Your task to perform on an android device: Open maps Image 0: 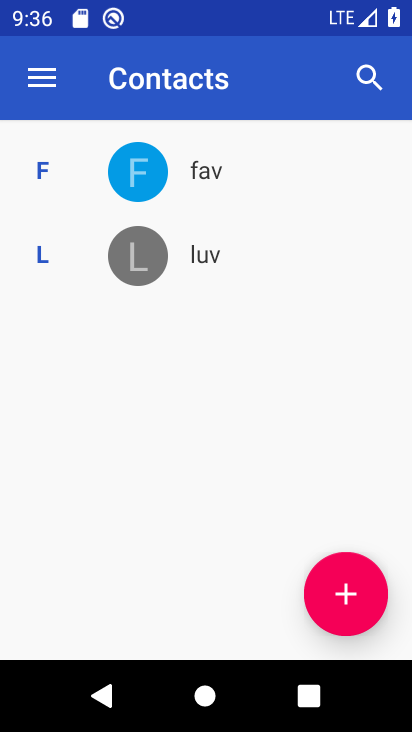
Step 0: press home button
Your task to perform on an android device: Open maps Image 1: 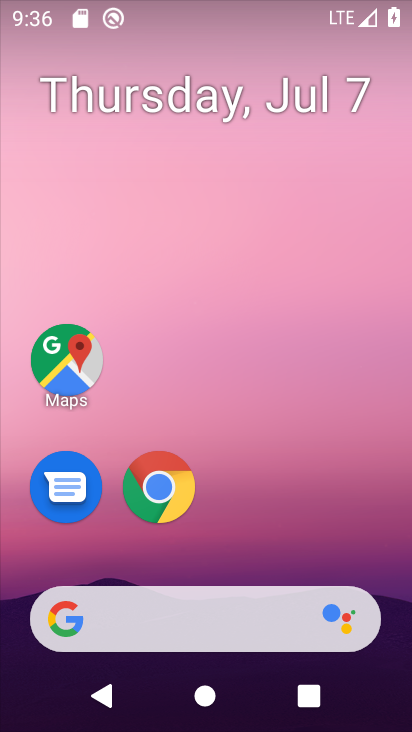
Step 1: drag from (353, 525) to (376, 172)
Your task to perform on an android device: Open maps Image 2: 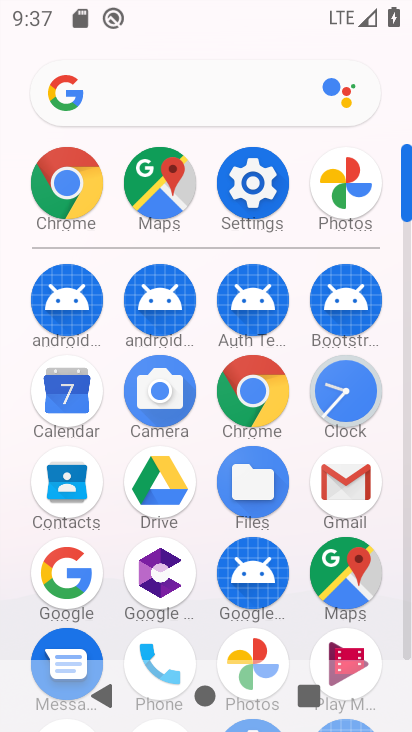
Step 2: click (355, 569)
Your task to perform on an android device: Open maps Image 3: 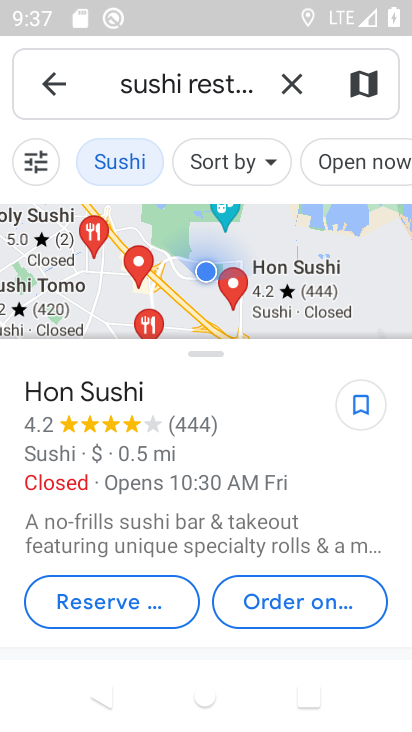
Step 3: task complete